Your task to perform on an android device: Turn off the flashlight Image 0: 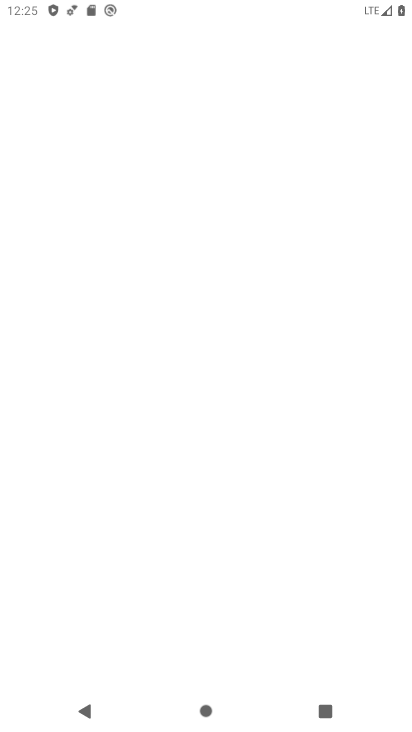
Step 0: drag from (185, 11) to (150, 576)
Your task to perform on an android device: Turn off the flashlight Image 1: 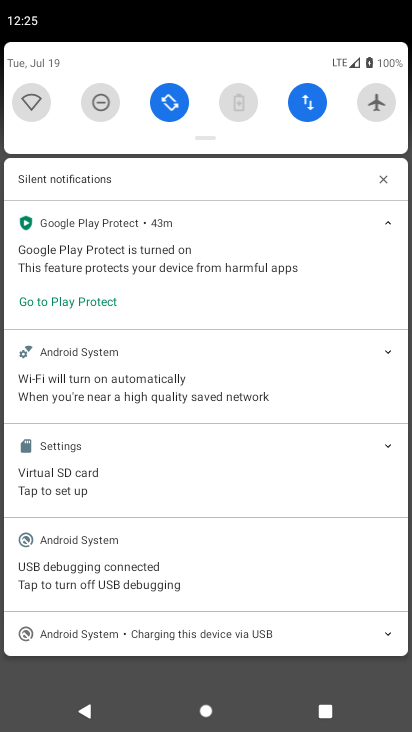
Step 1: drag from (166, 67) to (162, 571)
Your task to perform on an android device: Turn off the flashlight Image 2: 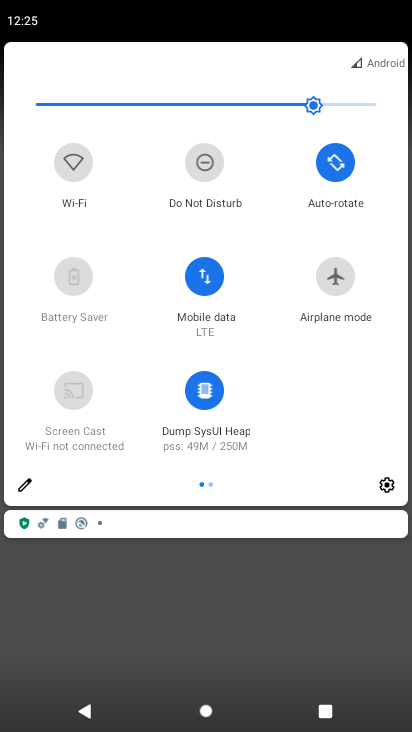
Step 2: drag from (216, 70) to (228, 523)
Your task to perform on an android device: Turn off the flashlight Image 3: 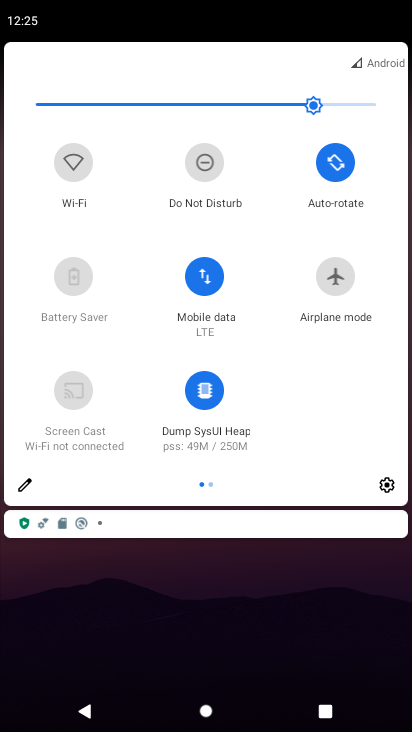
Step 3: click (392, 488)
Your task to perform on an android device: Turn off the flashlight Image 4: 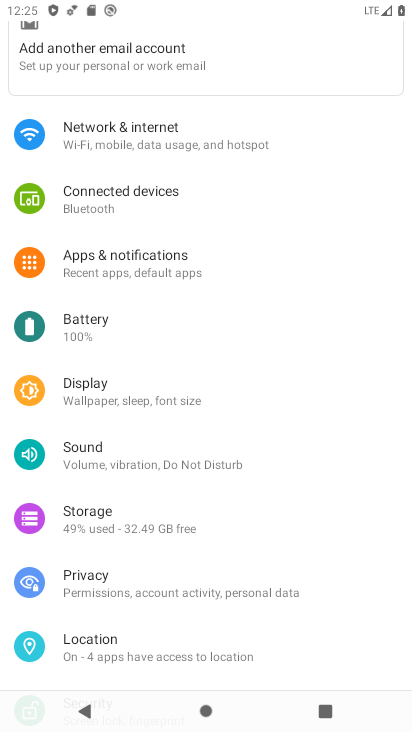
Step 4: task complete